Your task to perform on an android device: Open maps Image 0: 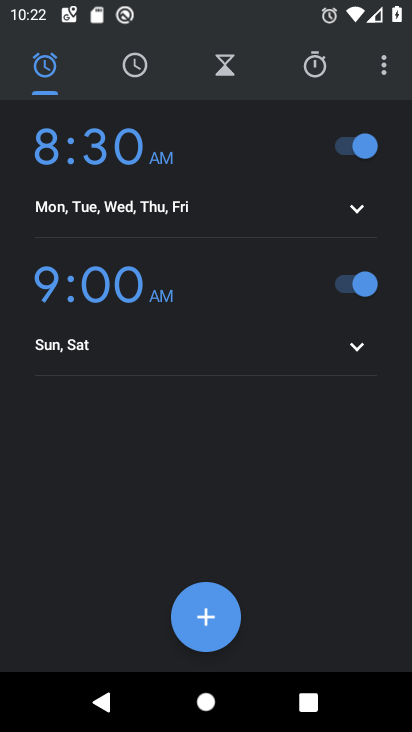
Step 0: press home button
Your task to perform on an android device: Open maps Image 1: 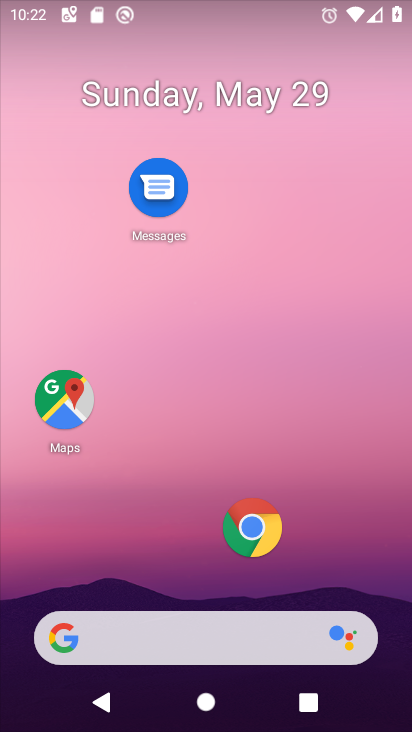
Step 1: click (63, 385)
Your task to perform on an android device: Open maps Image 2: 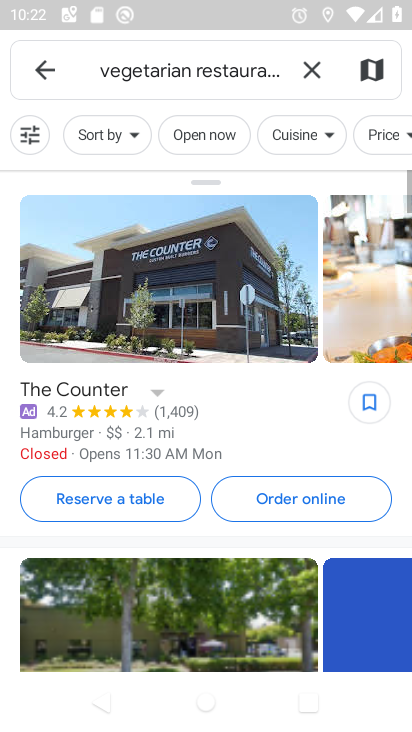
Step 2: click (48, 74)
Your task to perform on an android device: Open maps Image 3: 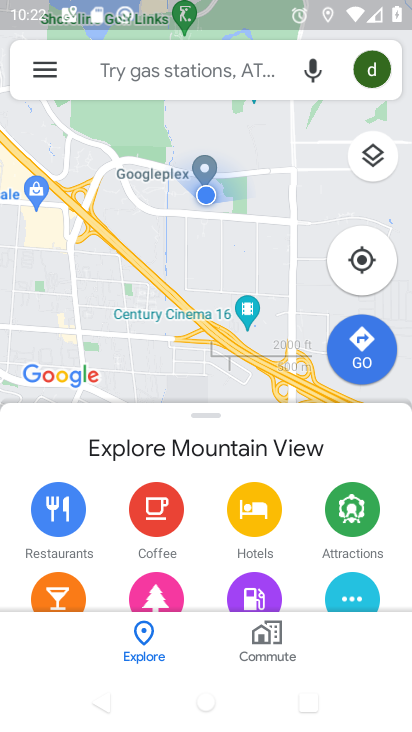
Step 3: task complete